Your task to perform on an android device: What's US dollar exchange rate against the Chinese Yuan? Image 0: 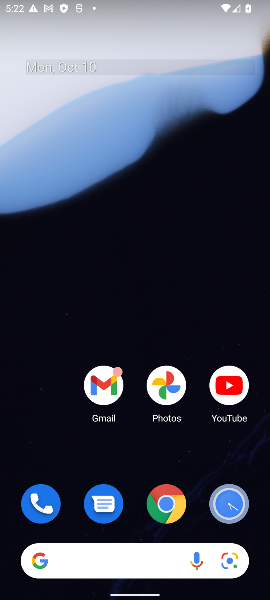
Step 0: drag from (178, 437) to (3, 314)
Your task to perform on an android device: What's US dollar exchange rate against the Chinese Yuan? Image 1: 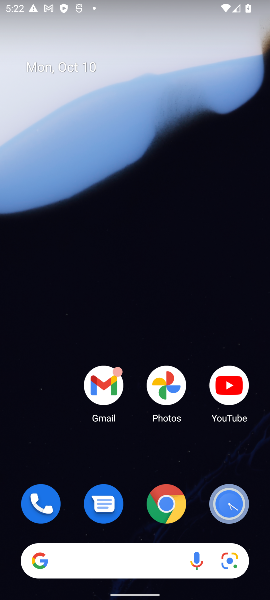
Step 1: drag from (186, 492) to (143, 95)
Your task to perform on an android device: What's US dollar exchange rate against the Chinese Yuan? Image 2: 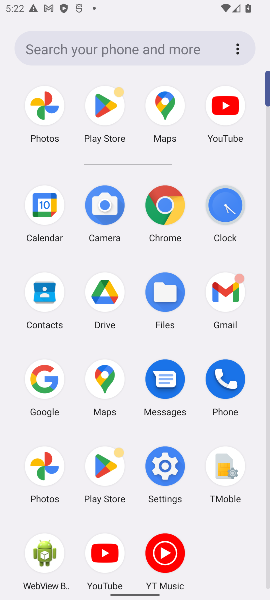
Step 2: click (165, 217)
Your task to perform on an android device: What's US dollar exchange rate against the Chinese Yuan? Image 3: 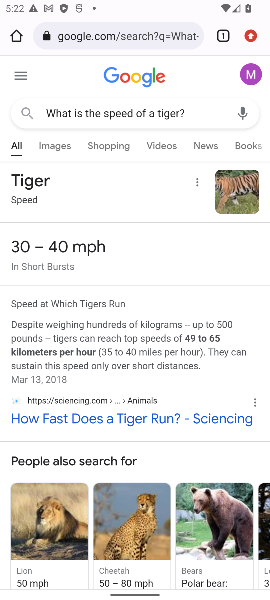
Step 3: click (106, 39)
Your task to perform on an android device: What's US dollar exchange rate against the Chinese Yuan? Image 4: 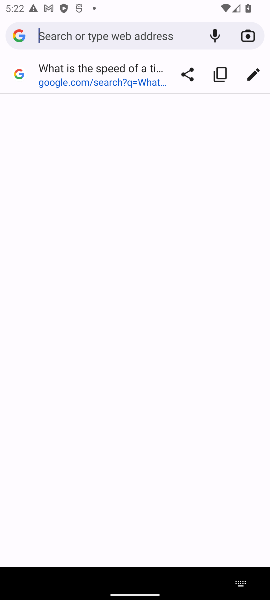
Step 4: type "What's US dollar exchange rate against the Chinese Yuan?"
Your task to perform on an android device: What's US dollar exchange rate against the Chinese Yuan? Image 5: 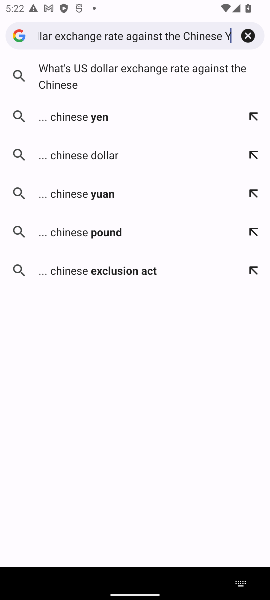
Step 5: press enter
Your task to perform on an android device: What's US dollar exchange rate against the Chinese Yuan? Image 6: 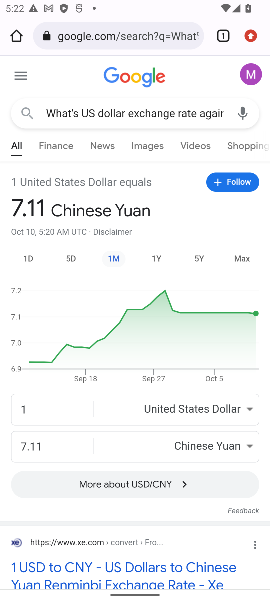
Step 6: task complete